Your task to perform on an android device: turn on javascript in the chrome app Image 0: 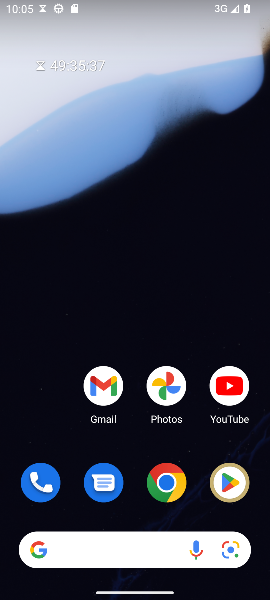
Step 0: drag from (103, 514) to (12, 171)
Your task to perform on an android device: turn on javascript in the chrome app Image 1: 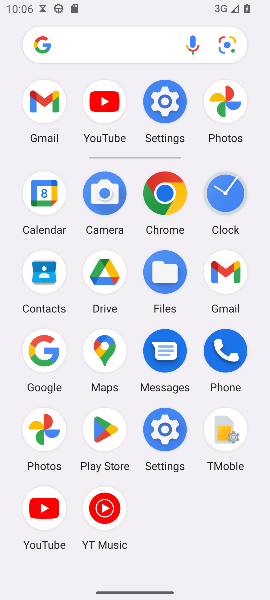
Step 1: click (164, 191)
Your task to perform on an android device: turn on javascript in the chrome app Image 2: 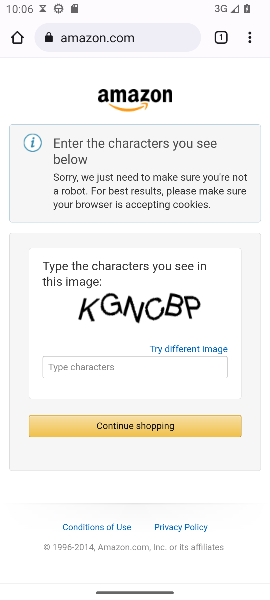
Step 2: drag from (251, 36) to (141, 526)
Your task to perform on an android device: turn on javascript in the chrome app Image 3: 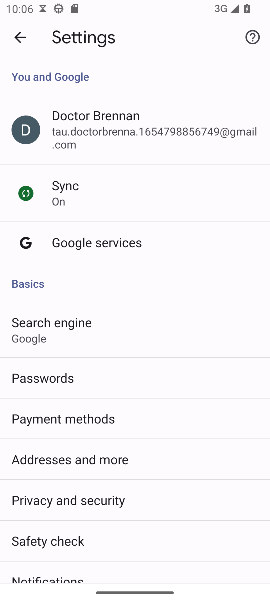
Step 3: drag from (91, 460) to (119, 88)
Your task to perform on an android device: turn on javascript in the chrome app Image 4: 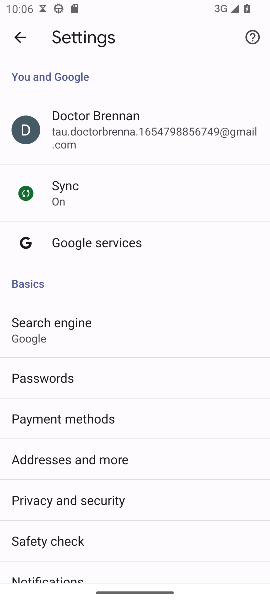
Step 4: drag from (143, 505) to (155, 104)
Your task to perform on an android device: turn on javascript in the chrome app Image 5: 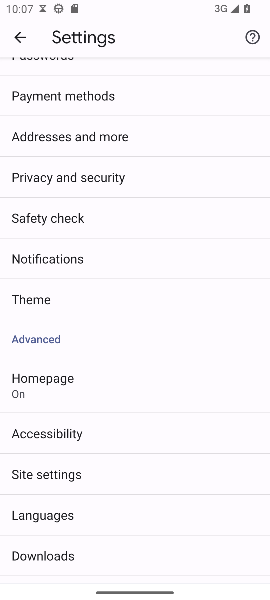
Step 5: click (98, 474)
Your task to perform on an android device: turn on javascript in the chrome app Image 6: 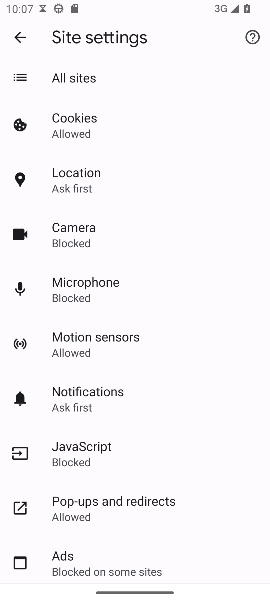
Step 6: click (103, 454)
Your task to perform on an android device: turn on javascript in the chrome app Image 7: 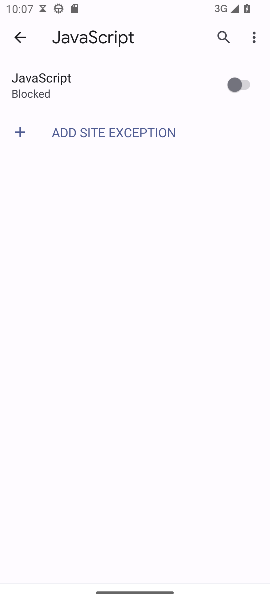
Step 7: click (244, 89)
Your task to perform on an android device: turn on javascript in the chrome app Image 8: 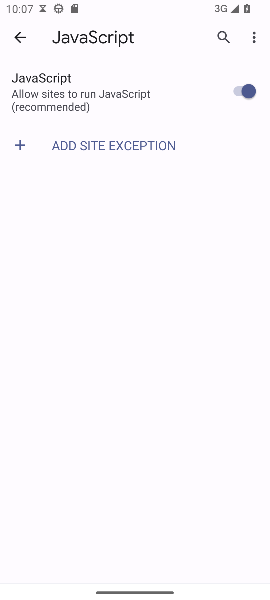
Step 8: task complete